Your task to perform on an android device: show emergency info Image 0: 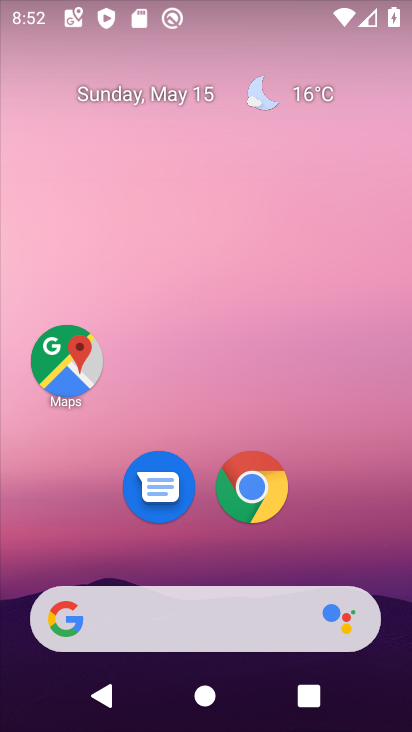
Step 0: drag from (391, 613) to (322, 107)
Your task to perform on an android device: show emergency info Image 1: 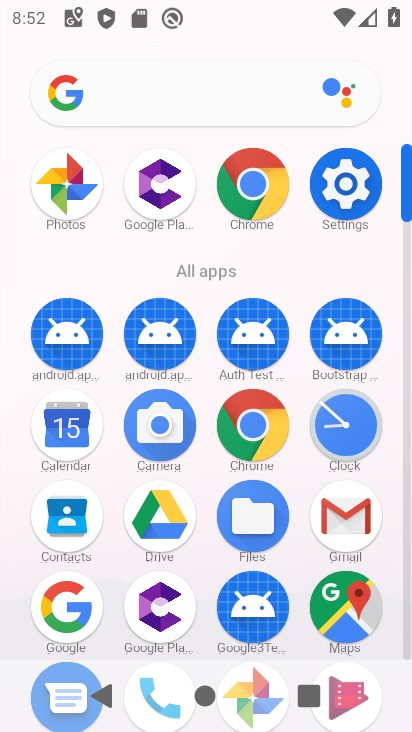
Step 1: click (408, 653)
Your task to perform on an android device: show emergency info Image 2: 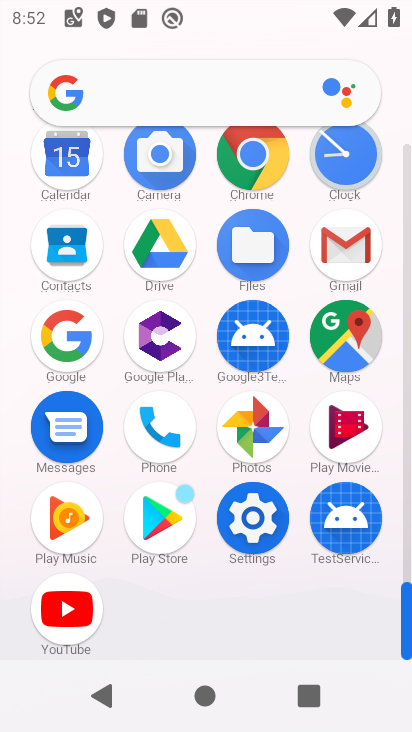
Step 2: click (255, 520)
Your task to perform on an android device: show emergency info Image 3: 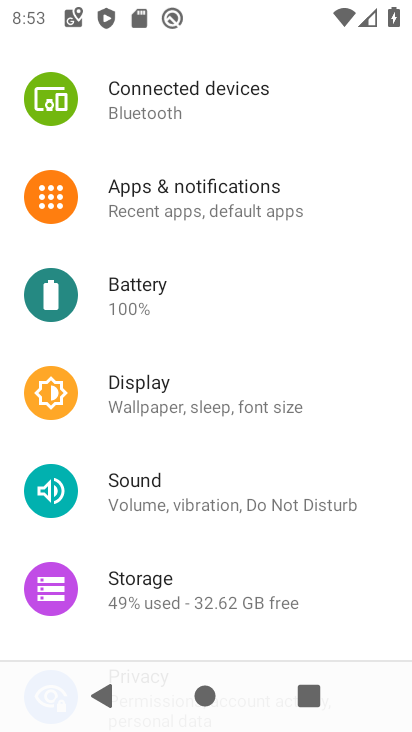
Step 3: drag from (332, 602) to (324, 303)
Your task to perform on an android device: show emergency info Image 4: 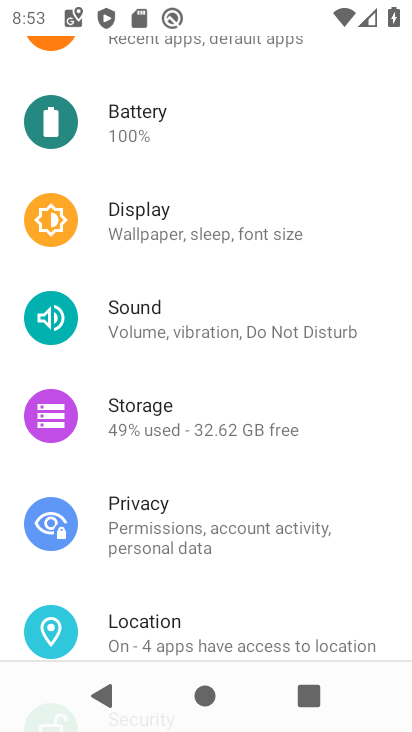
Step 4: drag from (346, 615) to (355, 108)
Your task to perform on an android device: show emergency info Image 5: 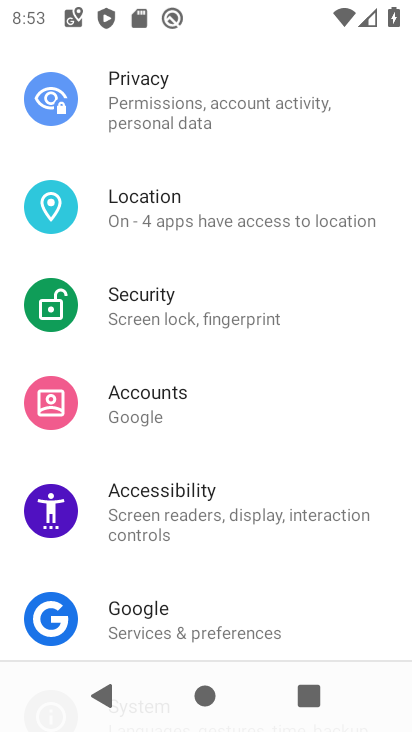
Step 5: drag from (287, 620) to (299, 134)
Your task to perform on an android device: show emergency info Image 6: 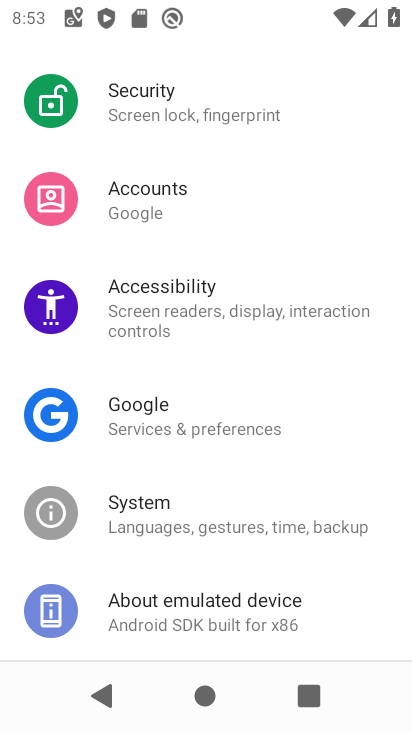
Step 6: click (215, 611)
Your task to perform on an android device: show emergency info Image 7: 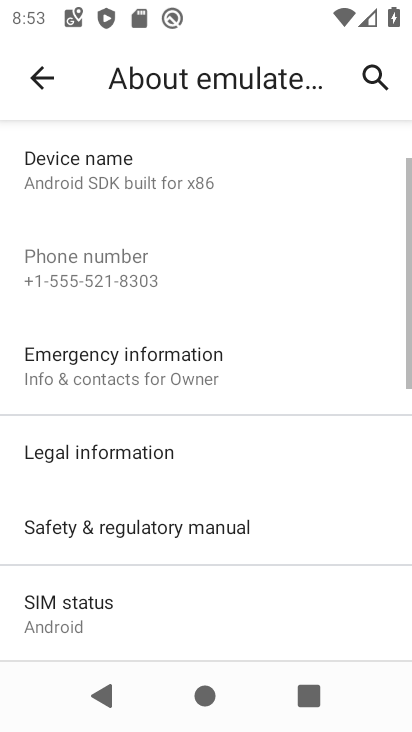
Step 7: click (80, 375)
Your task to perform on an android device: show emergency info Image 8: 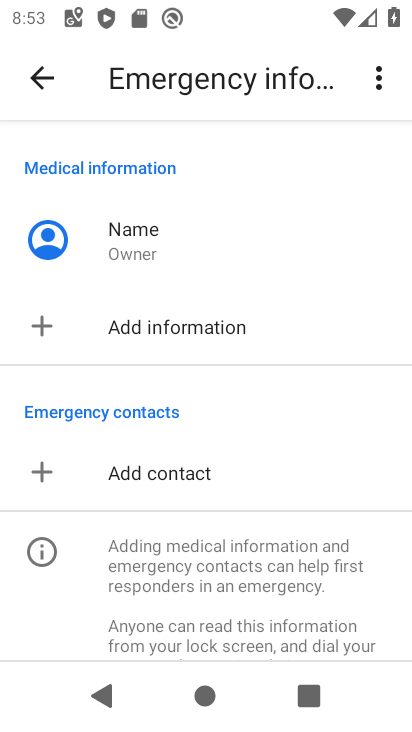
Step 8: task complete